Your task to perform on an android device: toggle pop-ups in chrome Image 0: 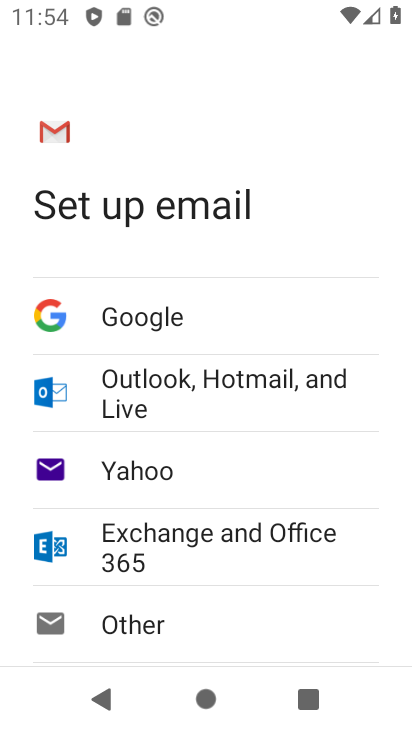
Step 0: press home button
Your task to perform on an android device: toggle pop-ups in chrome Image 1: 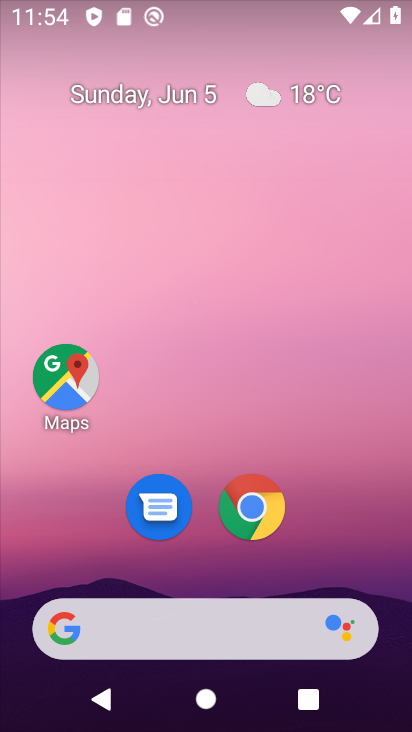
Step 1: click (253, 523)
Your task to perform on an android device: toggle pop-ups in chrome Image 2: 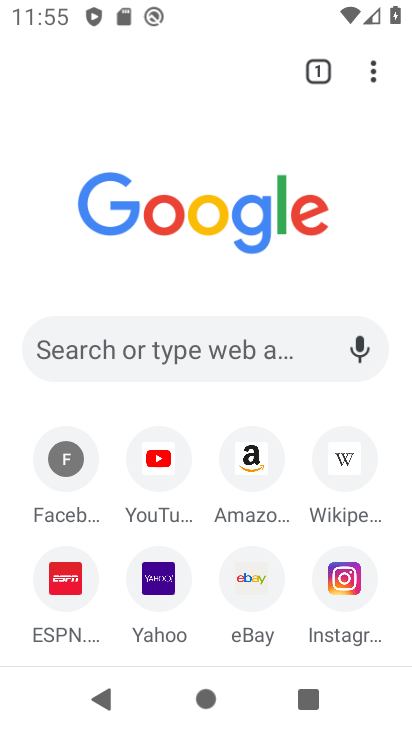
Step 2: click (368, 78)
Your task to perform on an android device: toggle pop-ups in chrome Image 3: 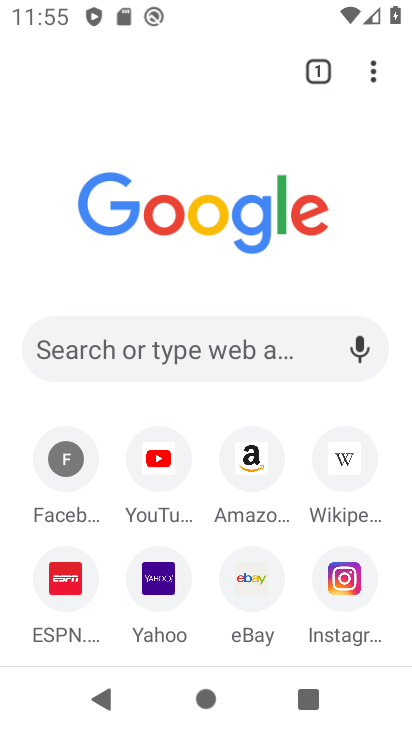
Step 3: click (373, 75)
Your task to perform on an android device: toggle pop-ups in chrome Image 4: 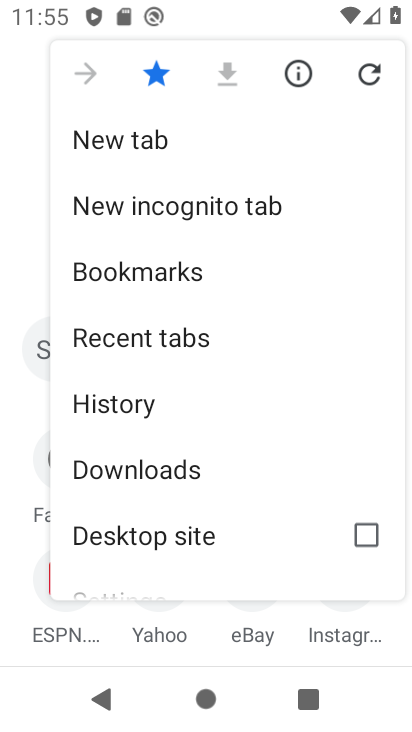
Step 4: drag from (188, 506) to (216, 165)
Your task to perform on an android device: toggle pop-ups in chrome Image 5: 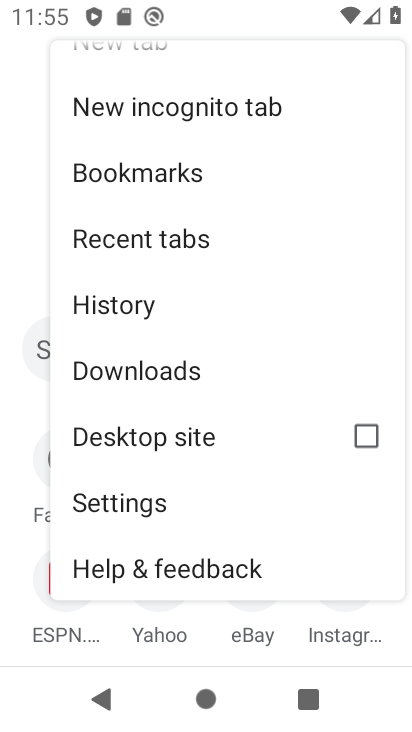
Step 5: click (141, 510)
Your task to perform on an android device: toggle pop-ups in chrome Image 6: 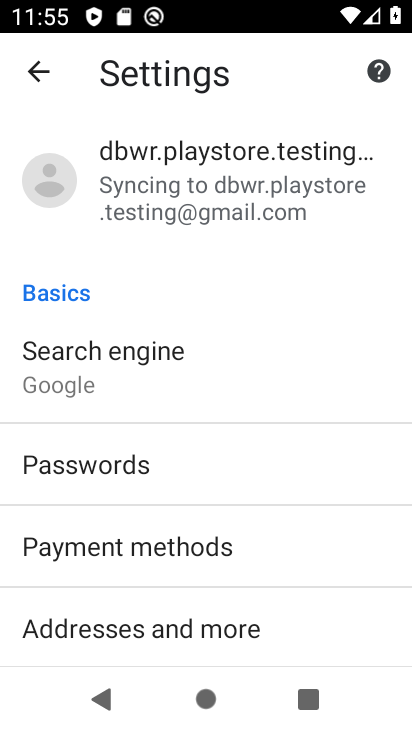
Step 6: drag from (161, 575) to (197, 199)
Your task to perform on an android device: toggle pop-ups in chrome Image 7: 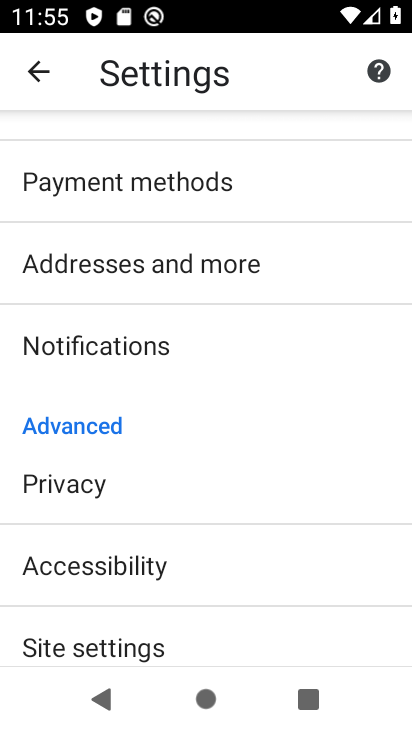
Step 7: click (127, 643)
Your task to perform on an android device: toggle pop-ups in chrome Image 8: 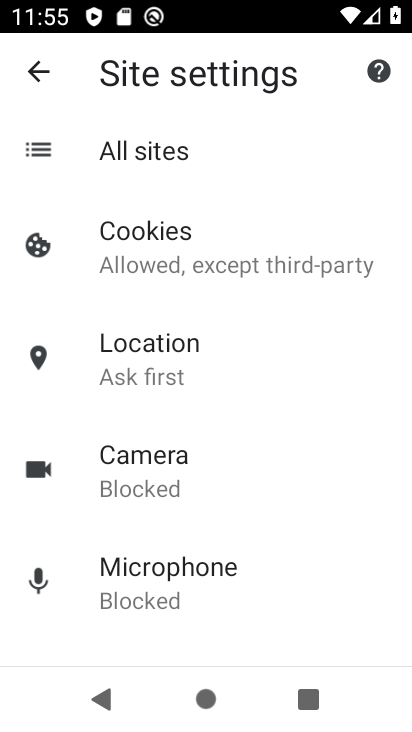
Step 8: drag from (183, 591) to (201, 220)
Your task to perform on an android device: toggle pop-ups in chrome Image 9: 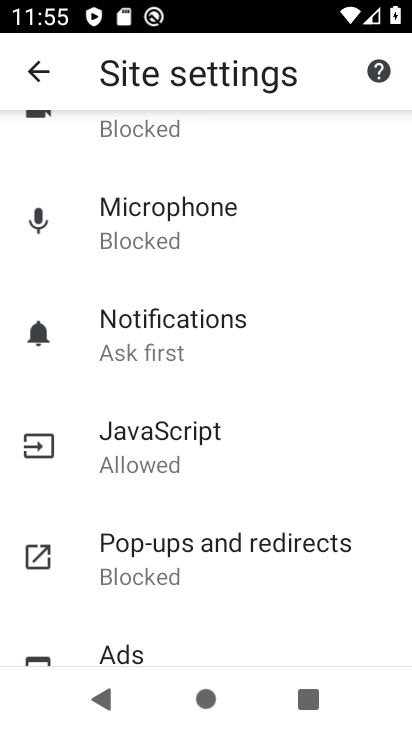
Step 9: click (222, 566)
Your task to perform on an android device: toggle pop-ups in chrome Image 10: 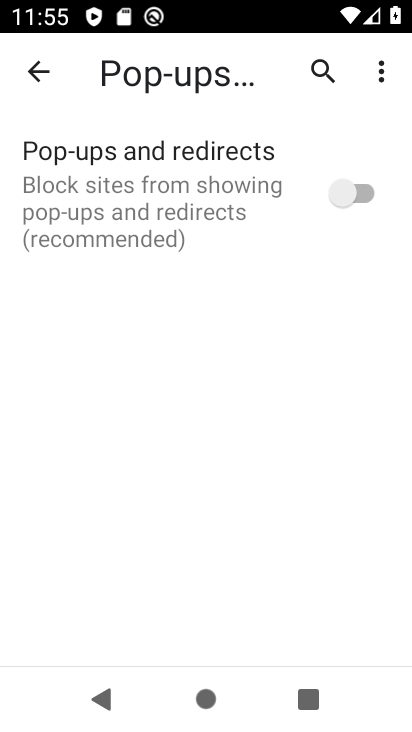
Step 10: click (375, 191)
Your task to perform on an android device: toggle pop-ups in chrome Image 11: 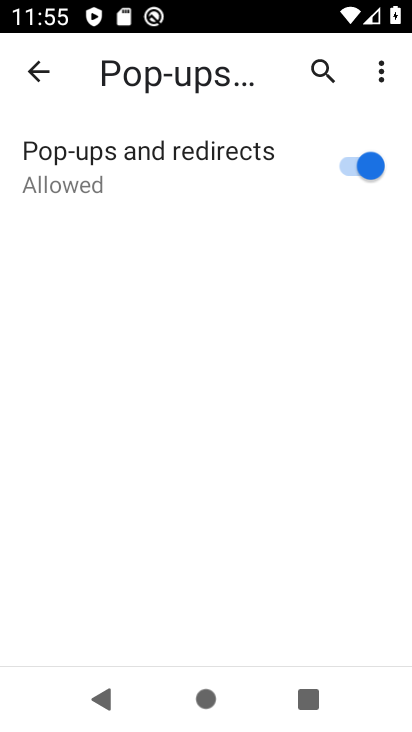
Step 11: task complete